Your task to perform on an android device: Open sound settings Image 0: 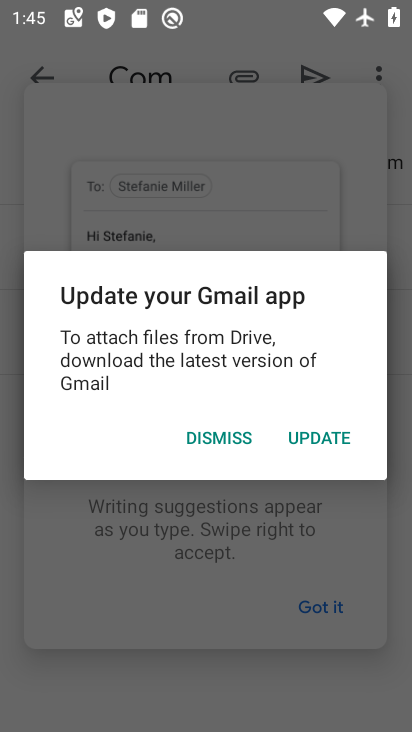
Step 0: press home button
Your task to perform on an android device: Open sound settings Image 1: 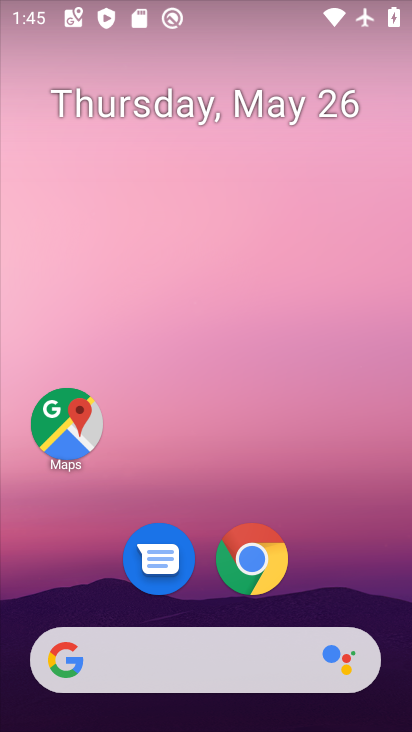
Step 1: drag from (162, 645) to (270, 77)
Your task to perform on an android device: Open sound settings Image 2: 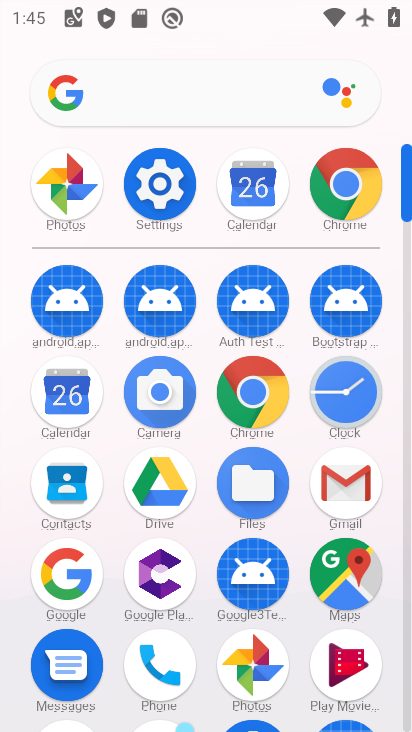
Step 2: click (162, 174)
Your task to perform on an android device: Open sound settings Image 3: 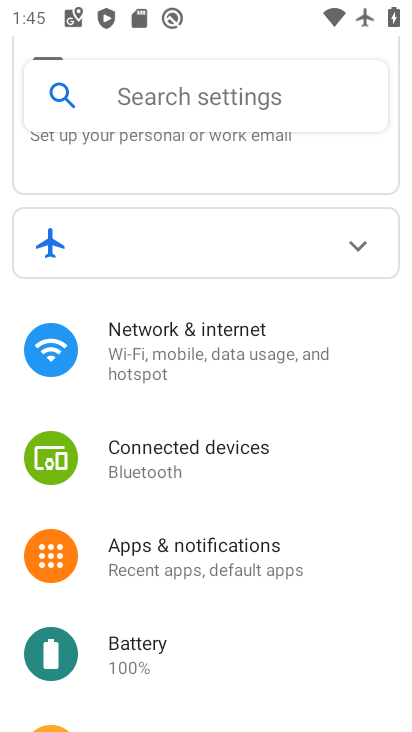
Step 3: drag from (202, 618) to (336, 144)
Your task to perform on an android device: Open sound settings Image 4: 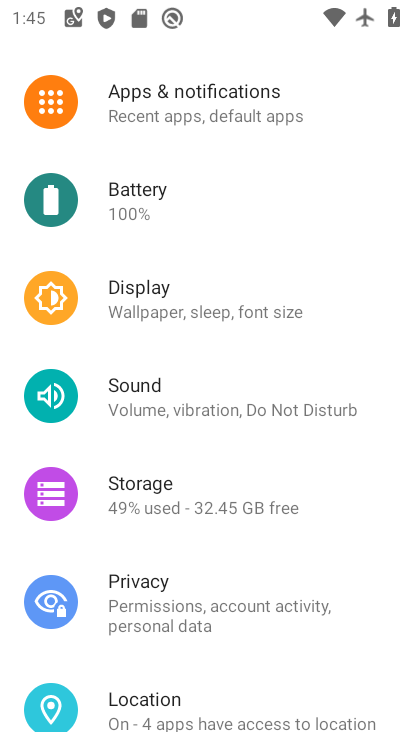
Step 4: click (152, 396)
Your task to perform on an android device: Open sound settings Image 5: 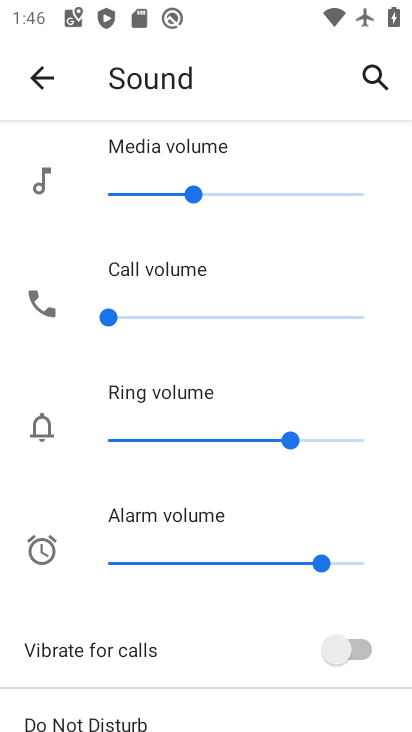
Step 5: task complete